Your task to perform on an android device: change the clock display to analog Image 0: 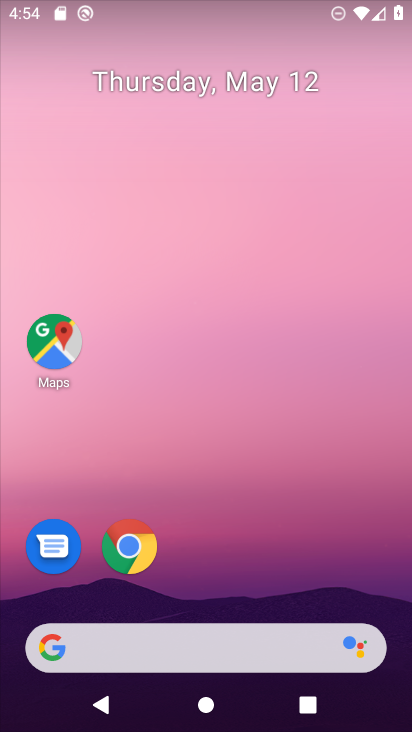
Step 0: drag from (281, 568) to (258, 238)
Your task to perform on an android device: change the clock display to analog Image 1: 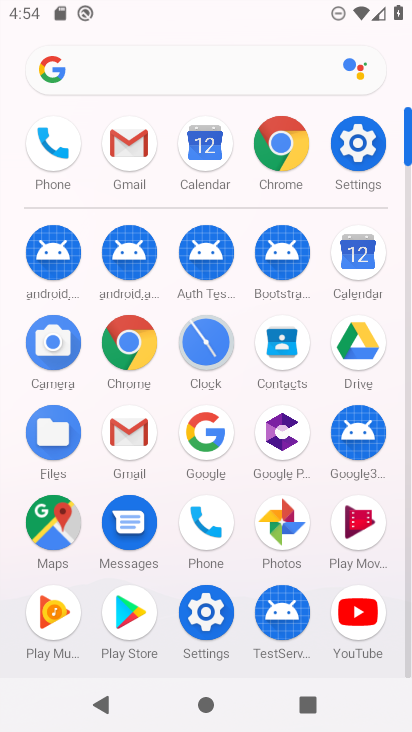
Step 1: click (208, 350)
Your task to perform on an android device: change the clock display to analog Image 2: 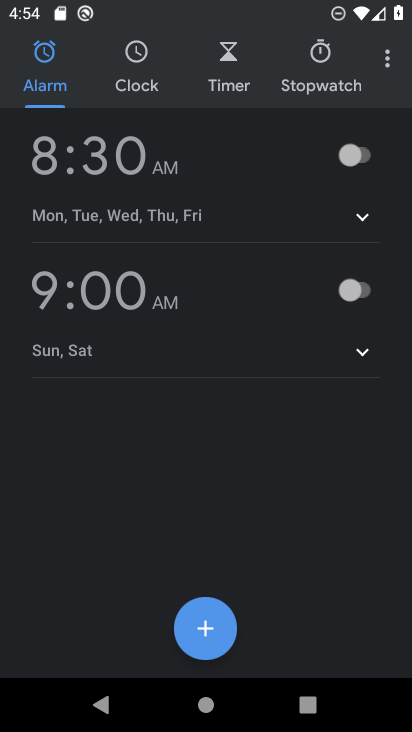
Step 2: click (378, 57)
Your task to perform on an android device: change the clock display to analog Image 3: 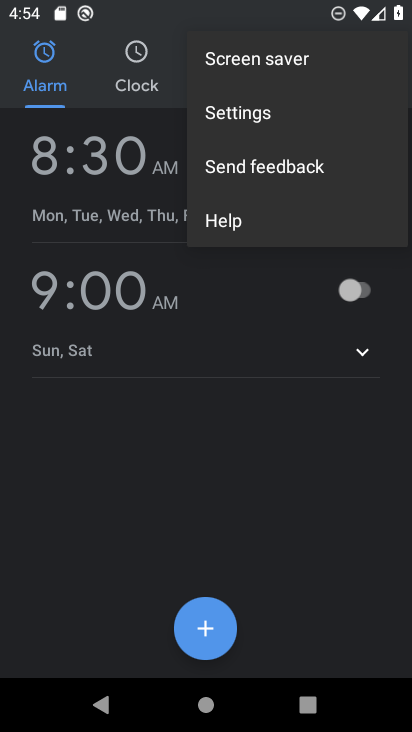
Step 3: click (265, 115)
Your task to perform on an android device: change the clock display to analog Image 4: 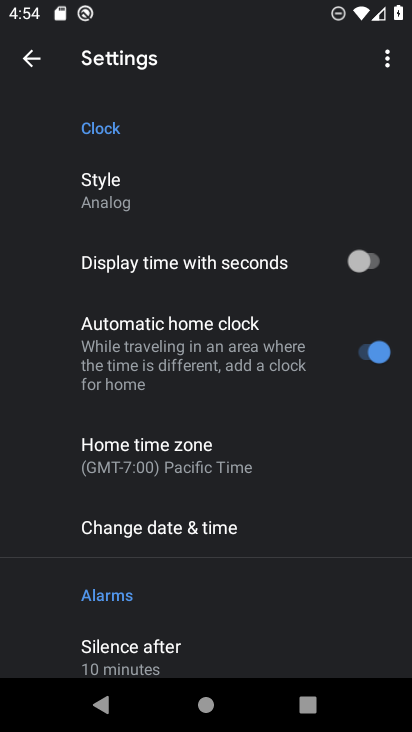
Step 4: click (135, 190)
Your task to perform on an android device: change the clock display to analog Image 5: 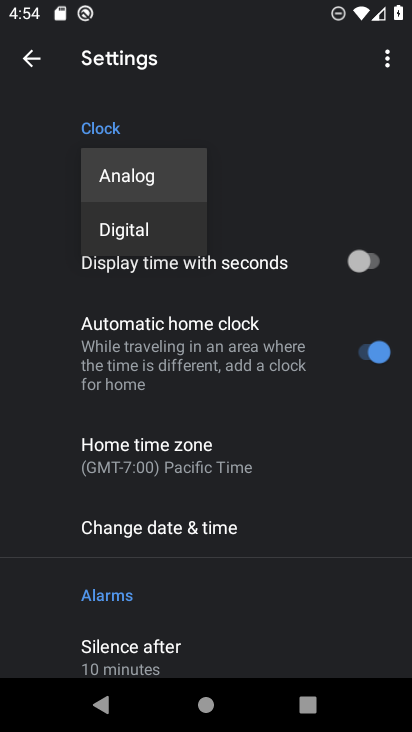
Step 5: click (124, 222)
Your task to perform on an android device: change the clock display to analog Image 6: 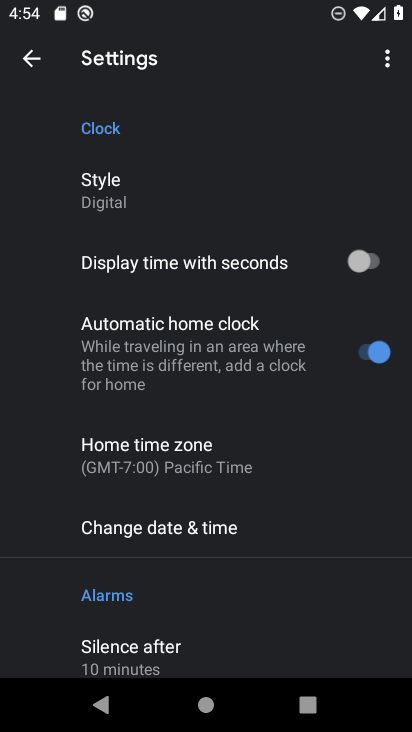
Step 6: task complete